Your task to perform on an android device: What is the recent news? Image 0: 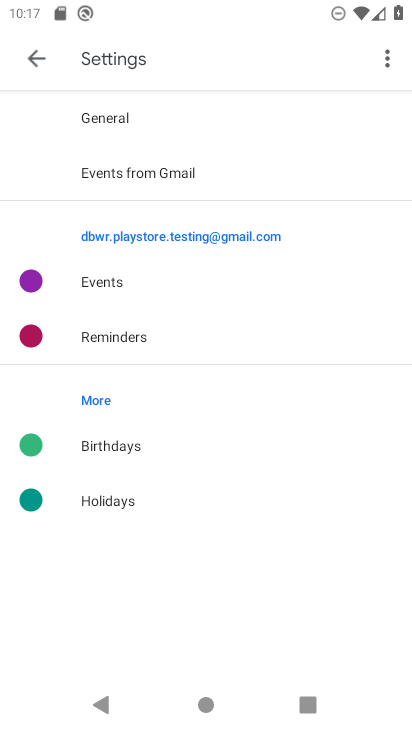
Step 0: press home button
Your task to perform on an android device: What is the recent news? Image 1: 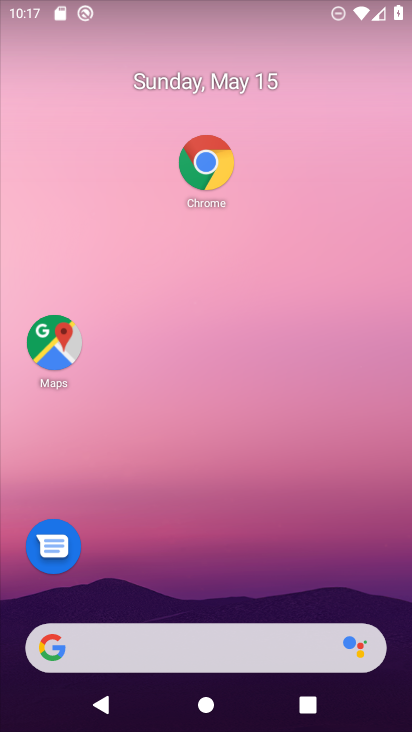
Step 1: click (207, 150)
Your task to perform on an android device: What is the recent news? Image 2: 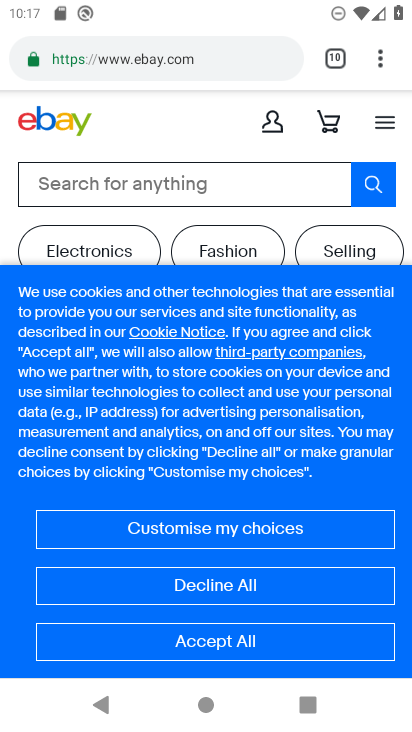
Step 2: click (369, 51)
Your task to perform on an android device: What is the recent news? Image 3: 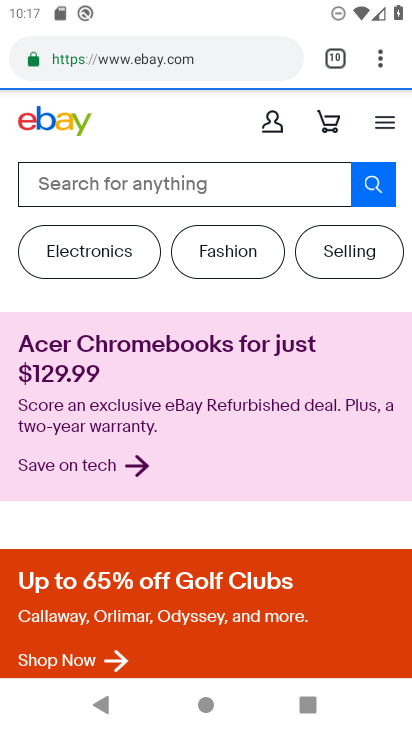
Step 3: click (332, 53)
Your task to perform on an android device: What is the recent news? Image 4: 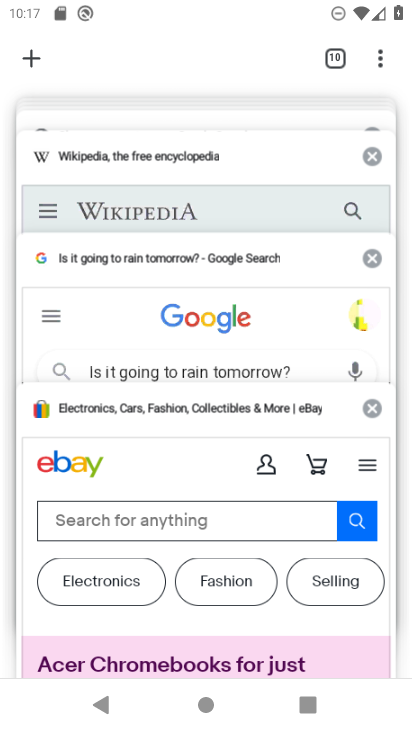
Step 4: drag from (141, 183) to (151, 488)
Your task to perform on an android device: What is the recent news? Image 5: 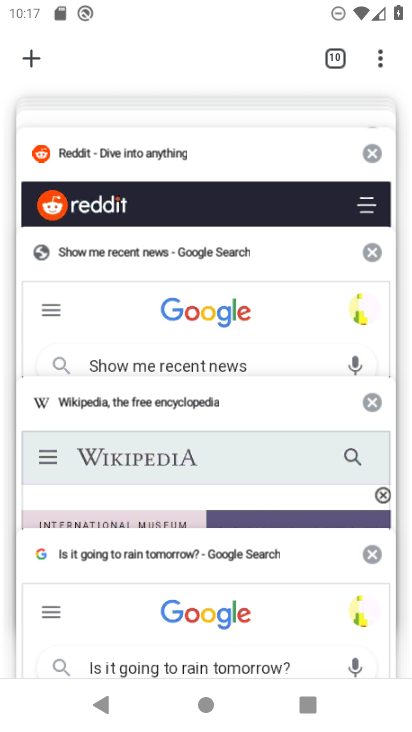
Step 5: click (118, 283)
Your task to perform on an android device: What is the recent news? Image 6: 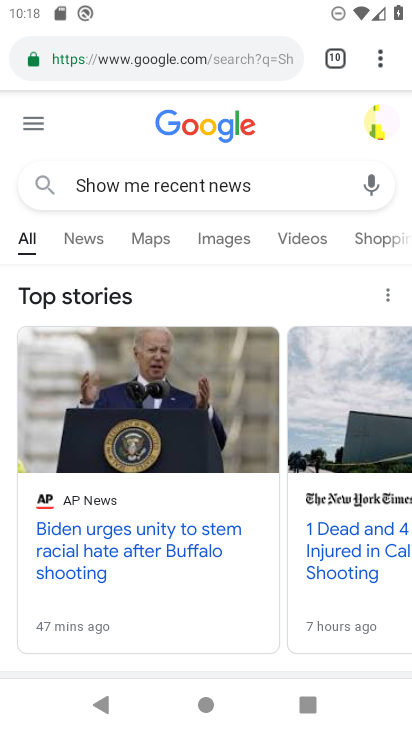
Step 6: task complete